Your task to perform on an android device: open app "Life360: Find Family & Friends" Image 0: 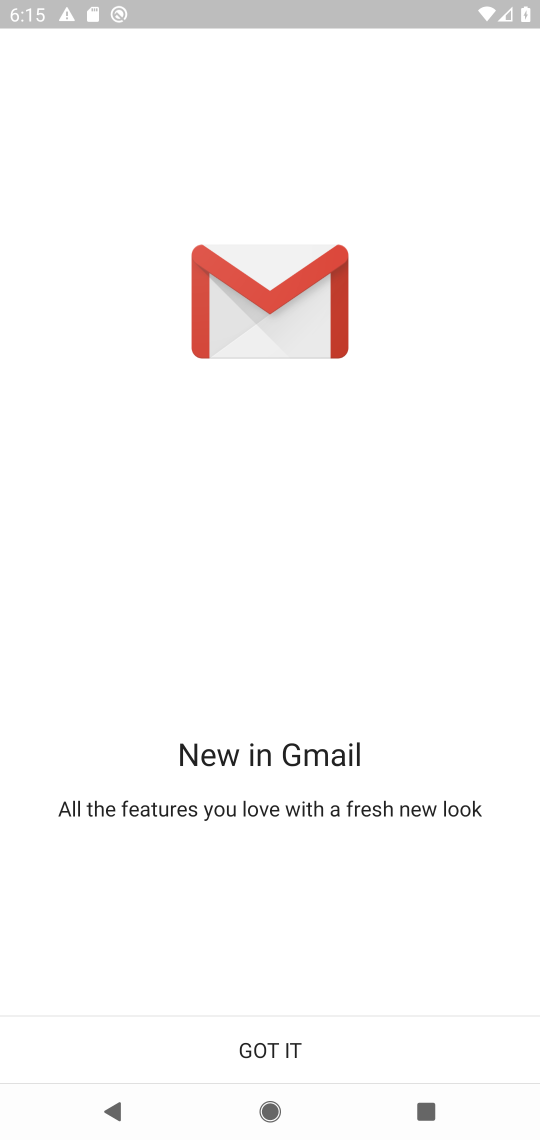
Step 0: press home button
Your task to perform on an android device: open app "Life360: Find Family & Friends" Image 1: 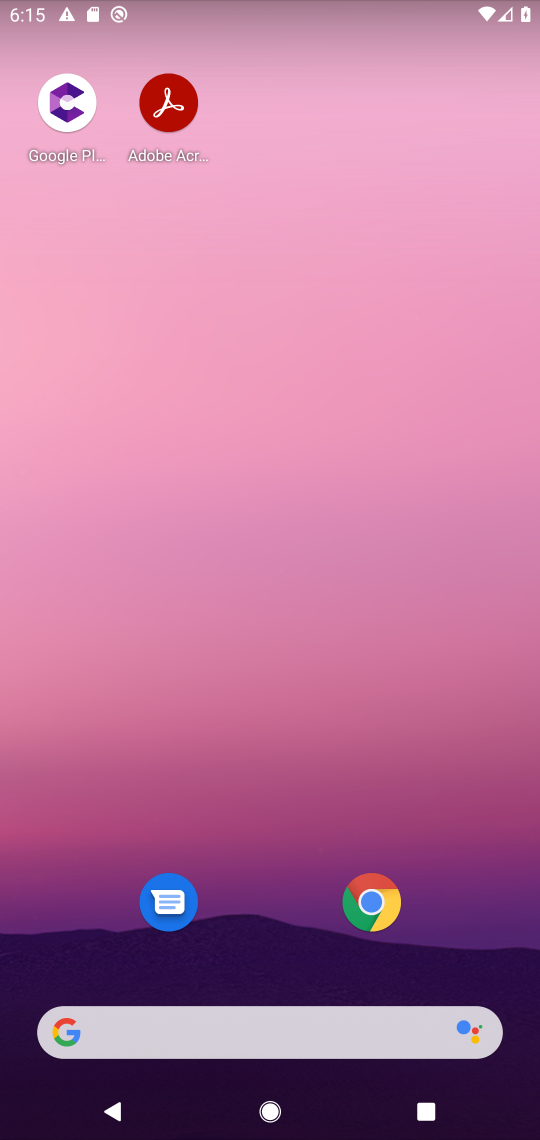
Step 1: drag from (245, 853) to (159, 114)
Your task to perform on an android device: open app "Life360: Find Family & Friends" Image 2: 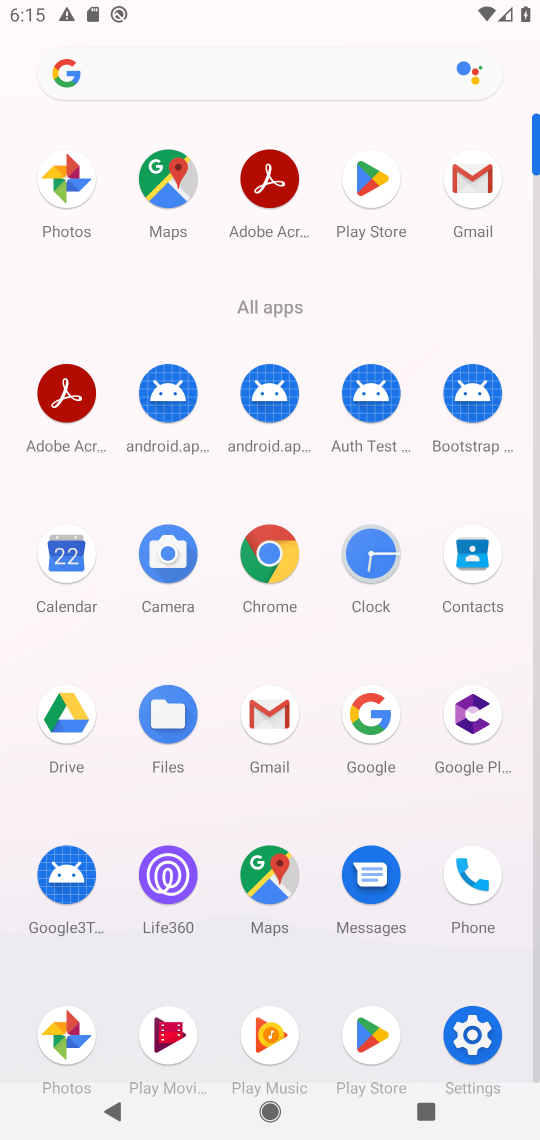
Step 2: click (375, 179)
Your task to perform on an android device: open app "Life360: Find Family & Friends" Image 3: 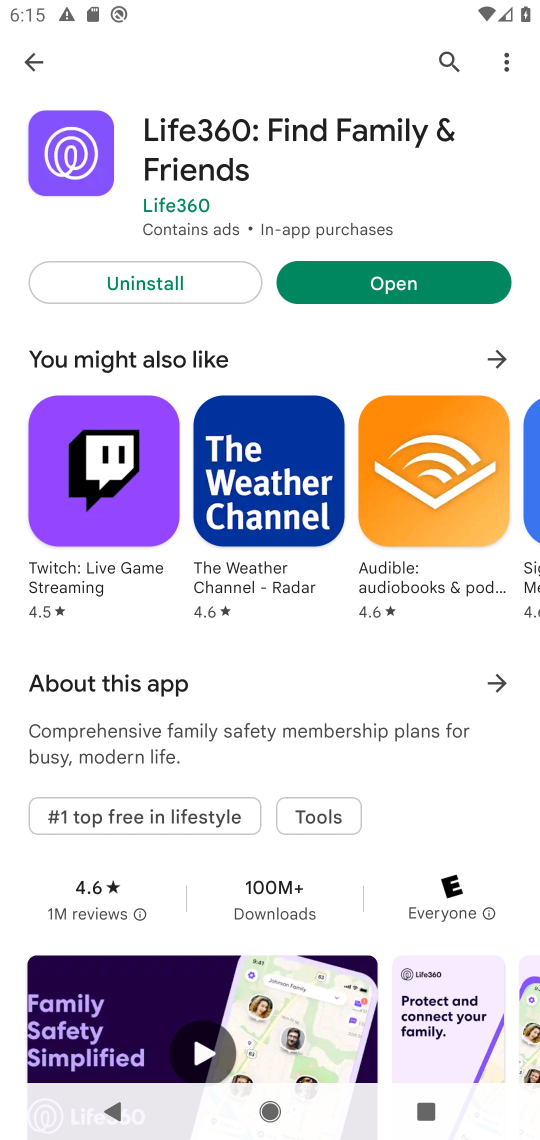
Step 3: click (25, 50)
Your task to perform on an android device: open app "Life360: Find Family & Friends" Image 4: 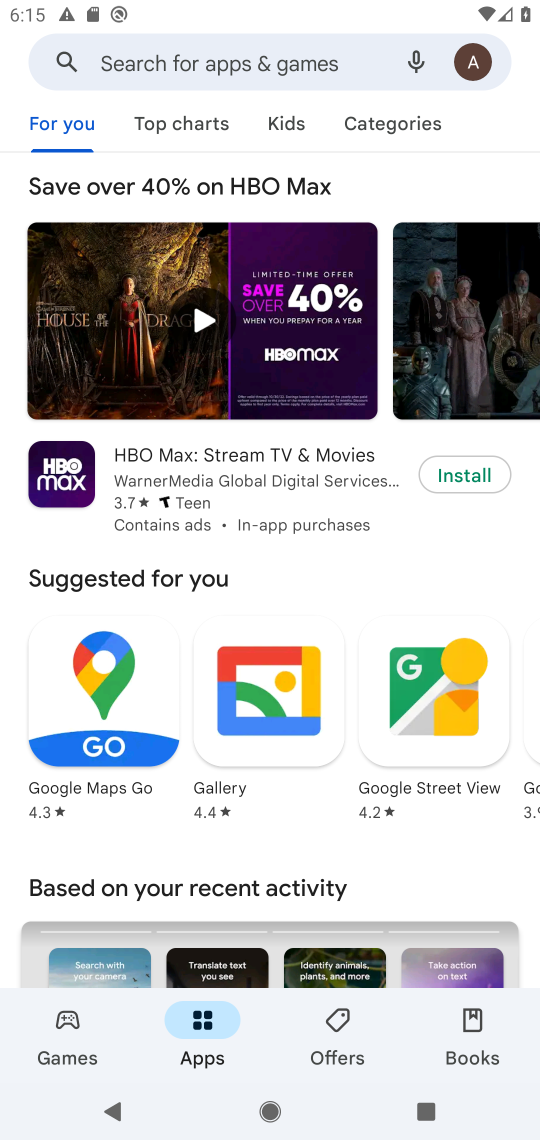
Step 4: click (212, 51)
Your task to perform on an android device: open app "Life360: Find Family & Friends" Image 5: 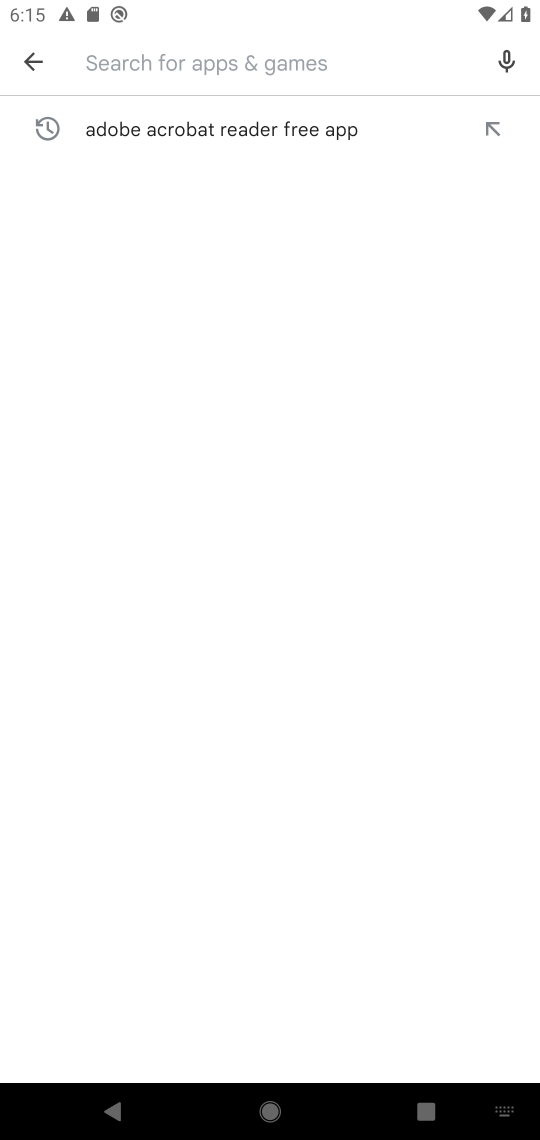
Step 5: type "Life360: Find Family & Friends"
Your task to perform on an android device: open app "Life360: Find Family & Friends" Image 6: 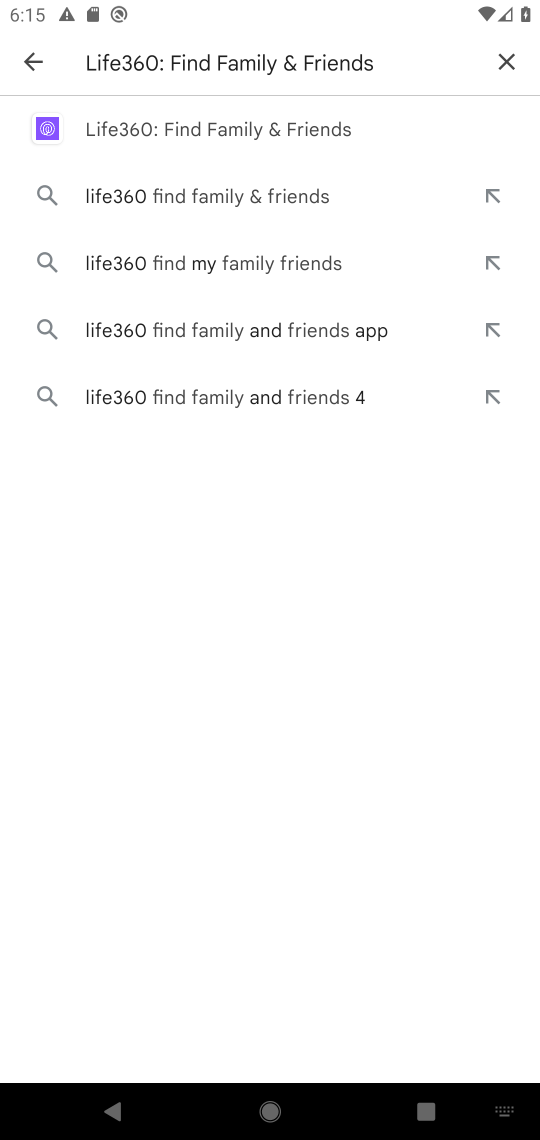
Step 6: click (183, 123)
Your task to perform on an android device: open app "Life360: Find Family & Friends" Image 7: 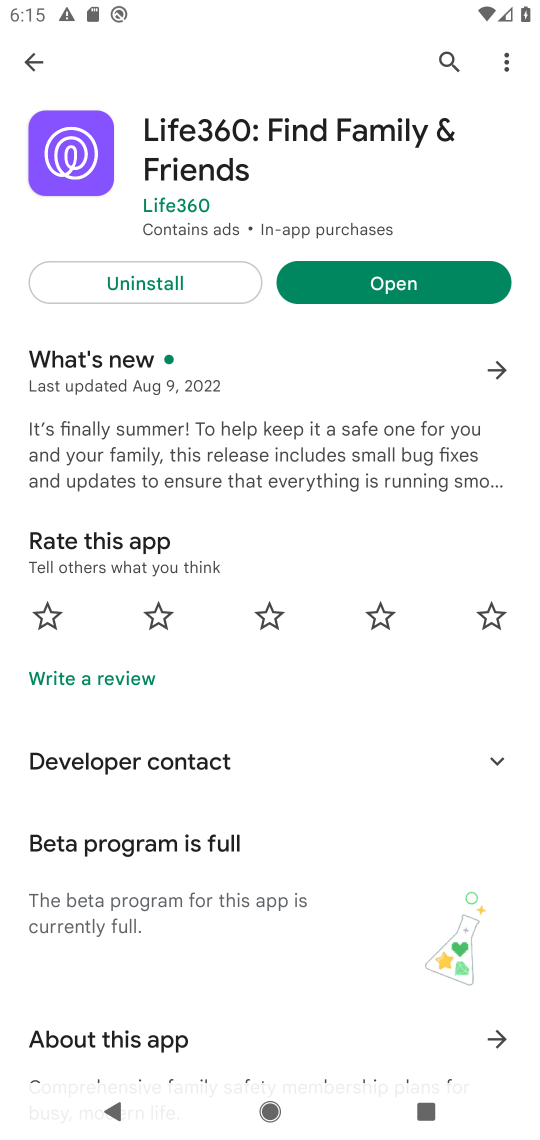
Step 7: click (391, 274)
Your task to perform on an android device: open app "Life360: Find Family & Friends" Image 8: 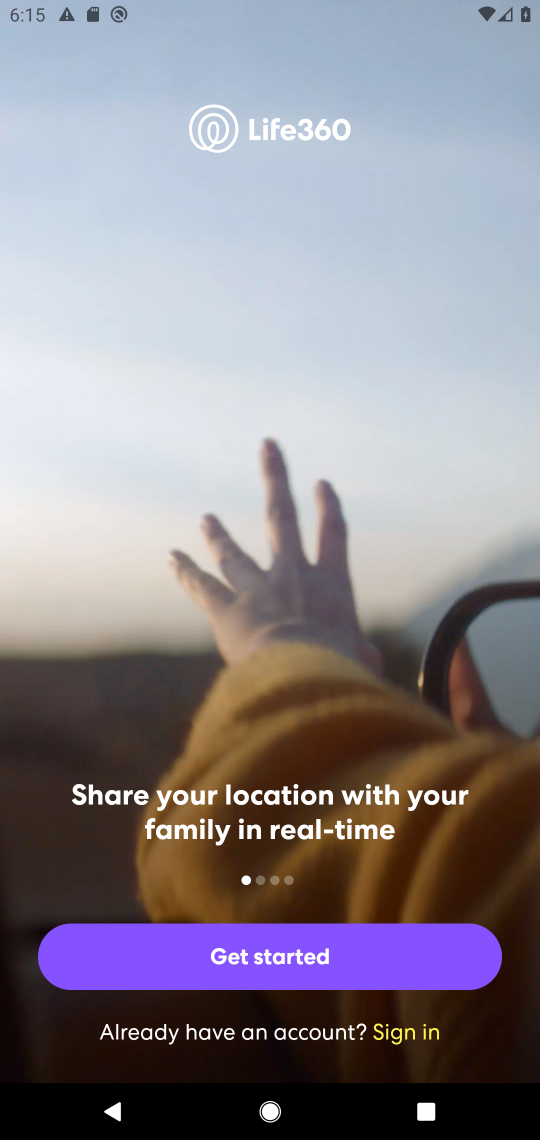
Step 8: task complete